Your task to perform on an android device: open app "DoorDash - Food Delivery" Image 0: 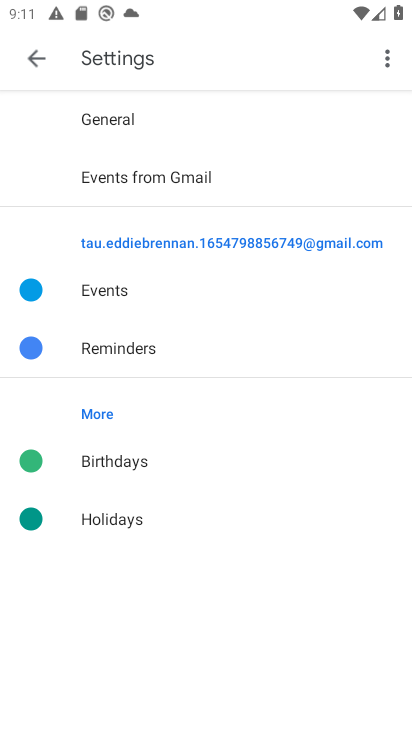
Step 0: press home button
Your task to perform on an android device: open app "DoorDash - Food Delivery" Image 1: 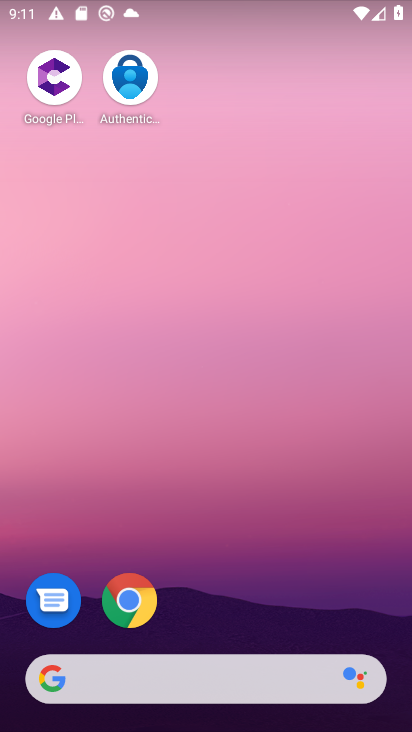
Step 1: drag from (240, 641) to (261, 141)
Your task to perform on an android device: open app "DoorDash - Food Delivery" Image 2: 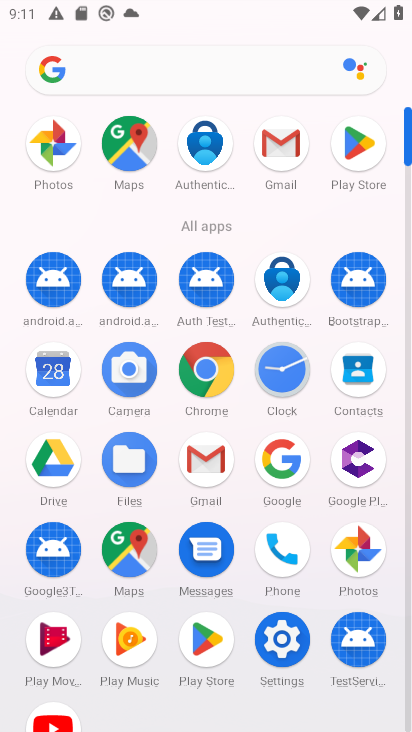
Step 2: click (409, 613)
Your task to perform on an android device: open app "DoorDash - Food Delivery" Image 3: 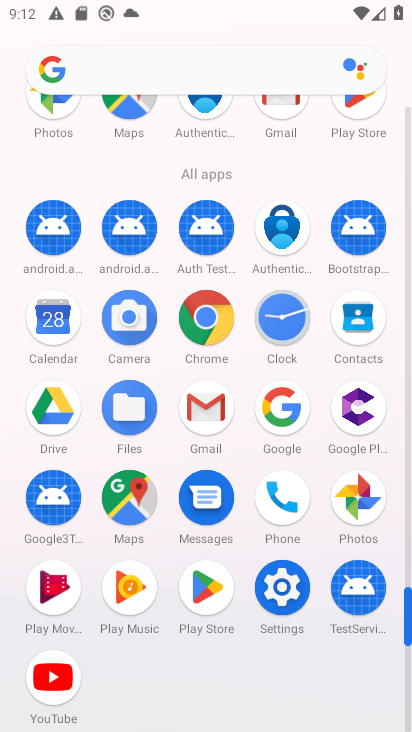
Step 3: click (197, 597)
Your task to perform on an android device: open app "DoorDash - Food Delivery" Image 4: 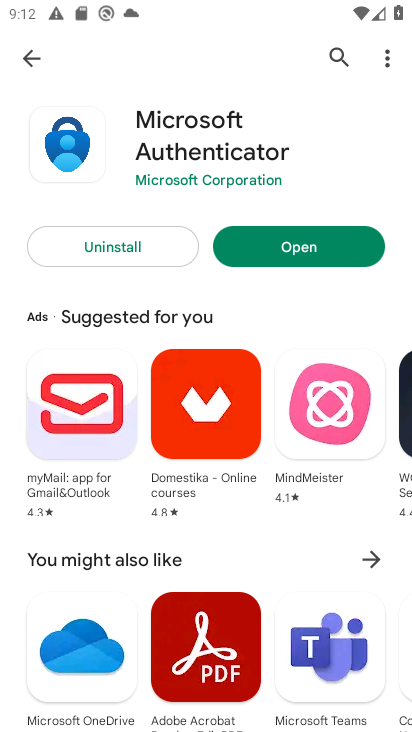
Step 4: click (340, 61)
Your task to perform on an android device: open app "DoorDash - Food Delivery" Image 5: 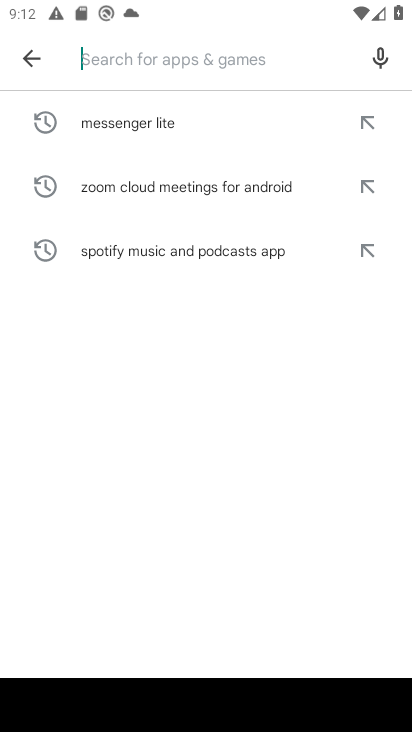
Step 5: click (254, 51)
Your task to perform on an android device: open app "DoorDash - Food Delivery" Image 6: 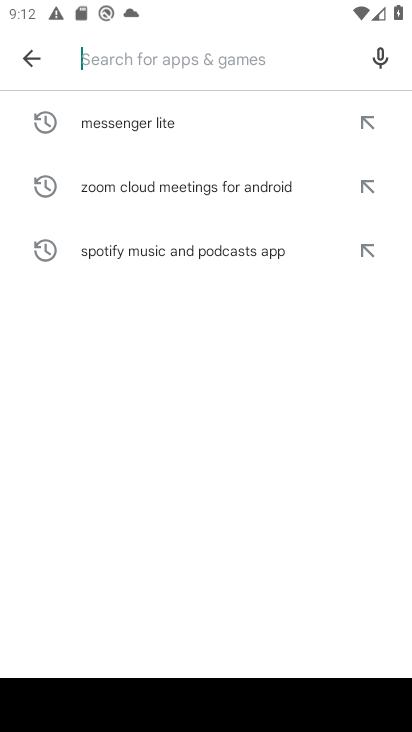
Step 6: type "DoorDash - Food Delivery"
Your task to perform on an android device: open app "DoorDash - Food Delivery" Image 7: 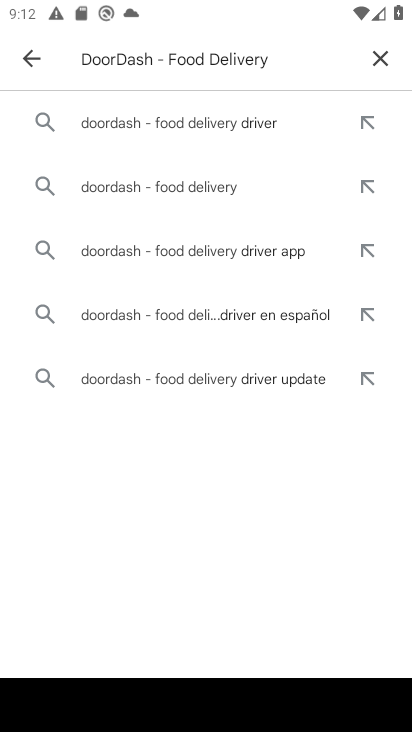
Step 7: click (180, 192)
Your task to perform on an android device: open app "DoorDash - Food Delivery" Image 8: 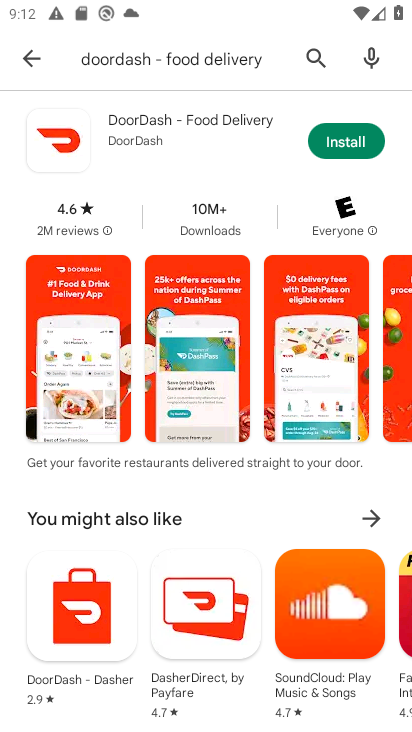
Step 8: task complete